Your task to perform on an android device: Turn off the flashlight Image 0: 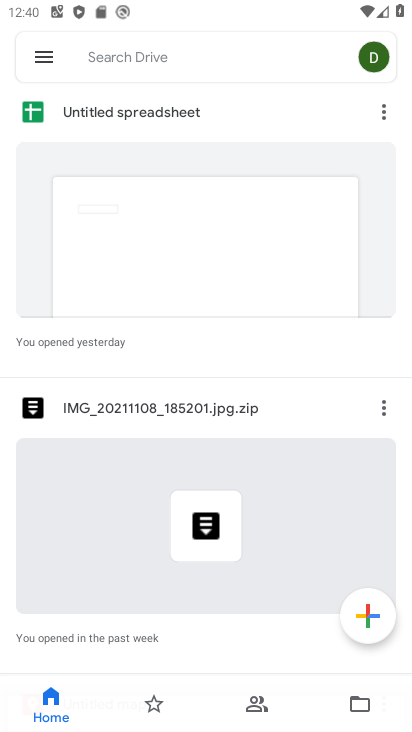
Step 0: press home button
Your task to perform on an android device: Turn off the flashlight Image 1: 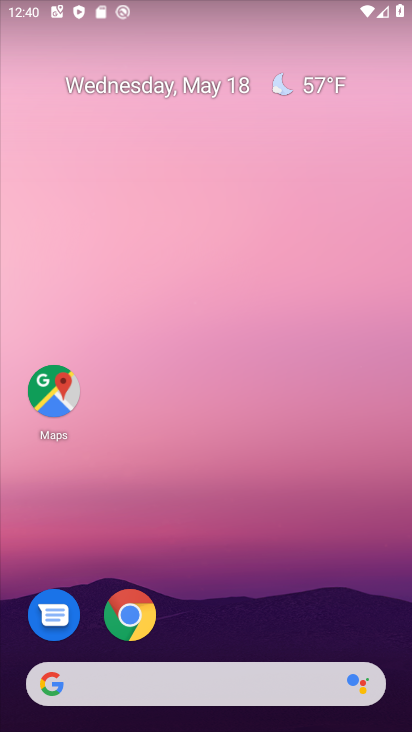
Step 1: drag from (389, 625) to (229, 46)
Your task to perform on an android device: Turn off the flashlight Image 2: 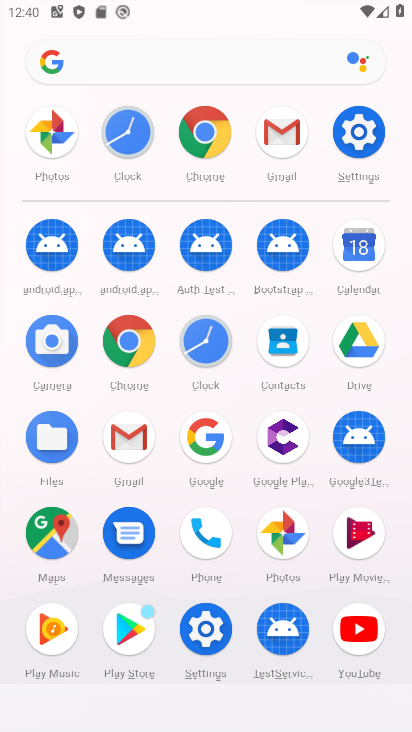
Step 2: click (193, 642)
Your task to perform on an android device: Turn off the flashlight Image 3: 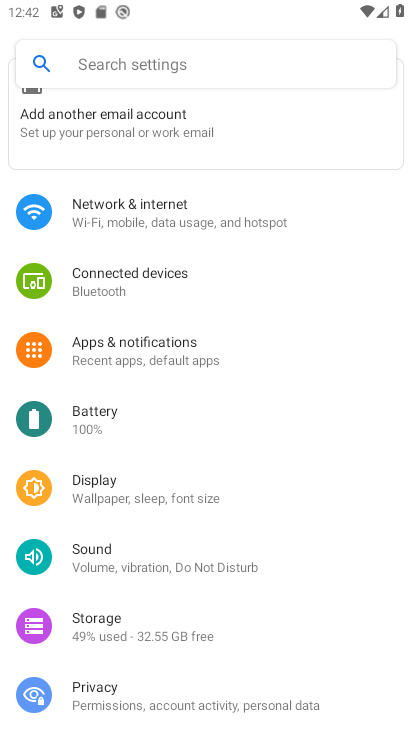
Step 3: task complete